Your task to perform on an android device: add a label to a message in the gmail app Image 0: 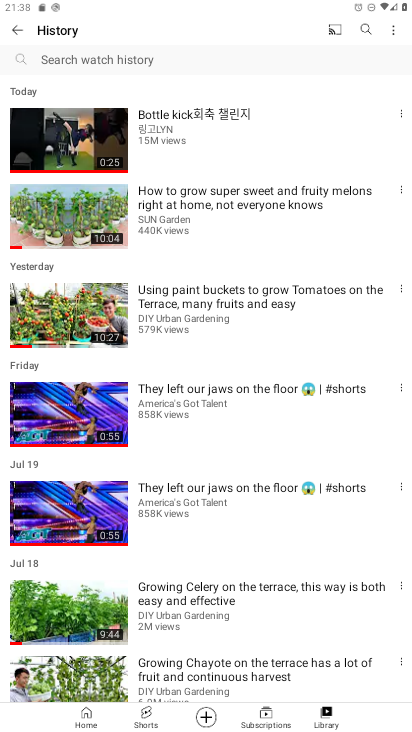
Step 0: press home button
Your task to perform on an android device: add a label to a message in the gmail app Image 1: 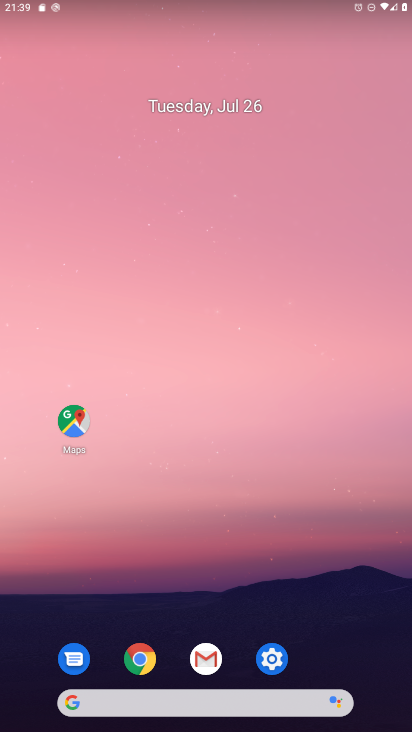
Step 1: click (215, 647)
Your task to perform on an android device: add a label to a message in the gmail app Image 2: 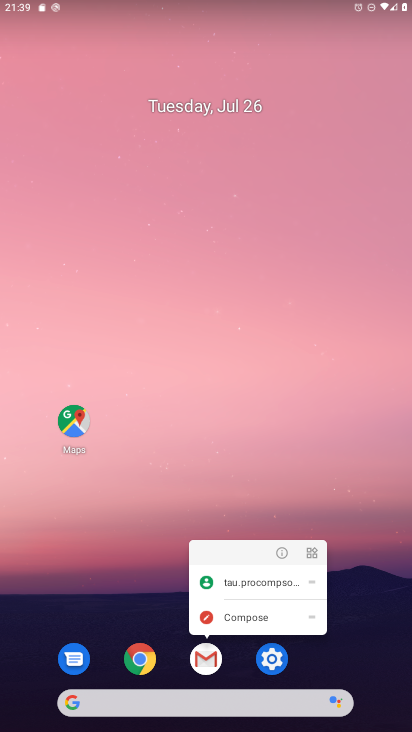
Step 2: click (199, 652)
Your task to perform on an android device: add a label to a message in the gmail app Image 3: 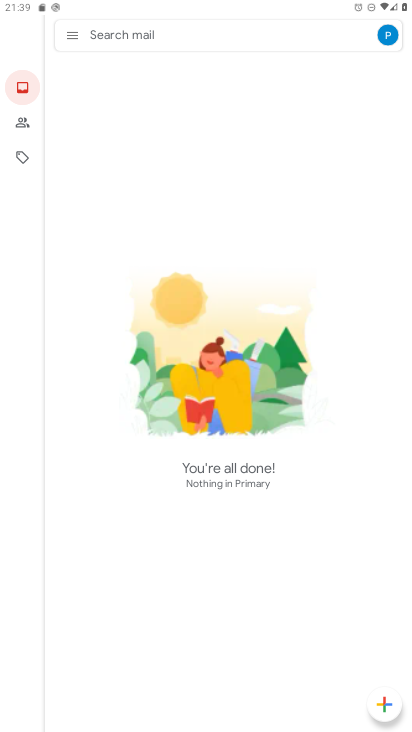
Step 3: click (73, 30)
Your task to perform on an android device: add a label to a message in the gmail app Image 4: 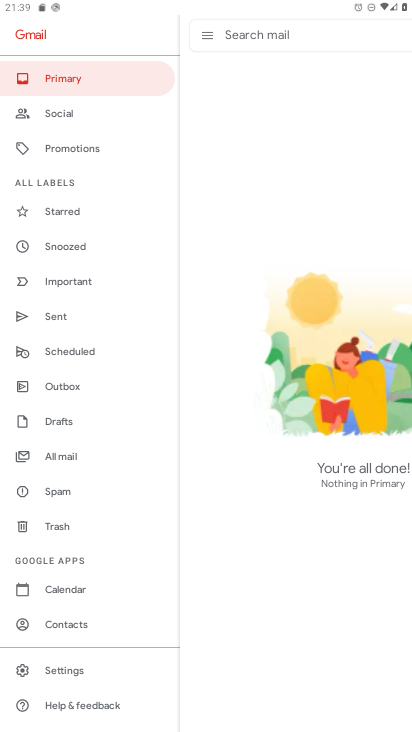
Step 4: click (66, 673)
Your task to perform on an android device: add a label to a message in the gmail app Image 5: 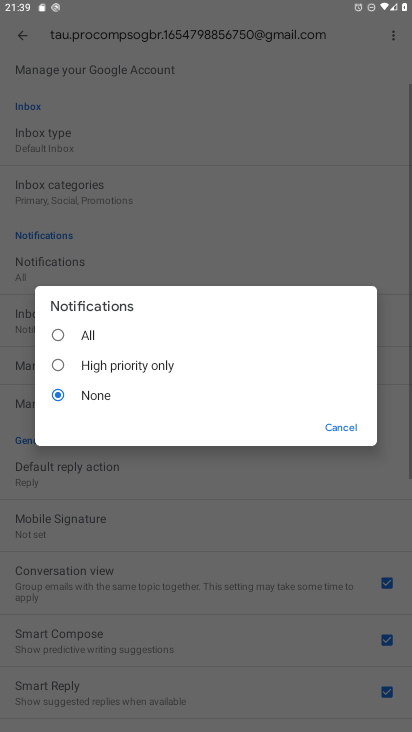
Step 5: click (140, 516)
Your task to perform on an android device: add a label to a message in the gmail app Image 6: 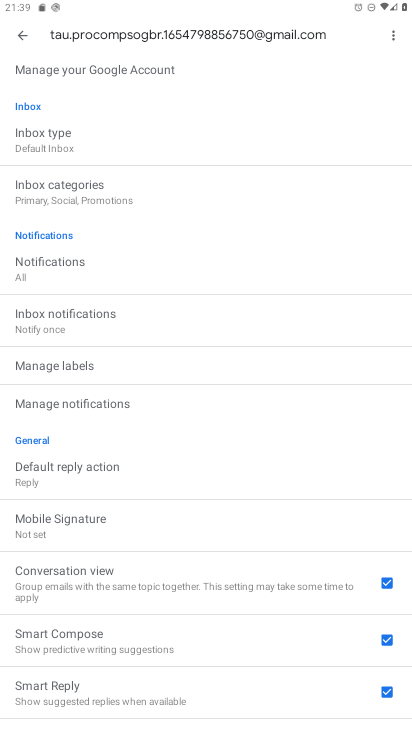
Step 6: click (84, 369)
Your task to perform on an android device: add a label to a message in the gmail app Image 7: 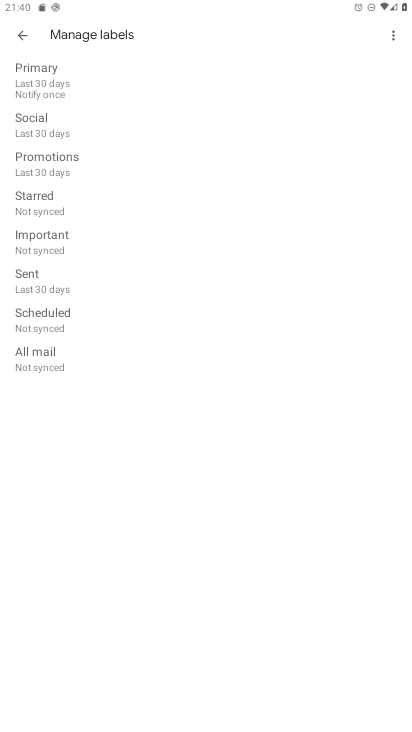
Step 7: click (42, 90)
Your task to perform on an android device: add a label to a message in the gmail app Image 8: 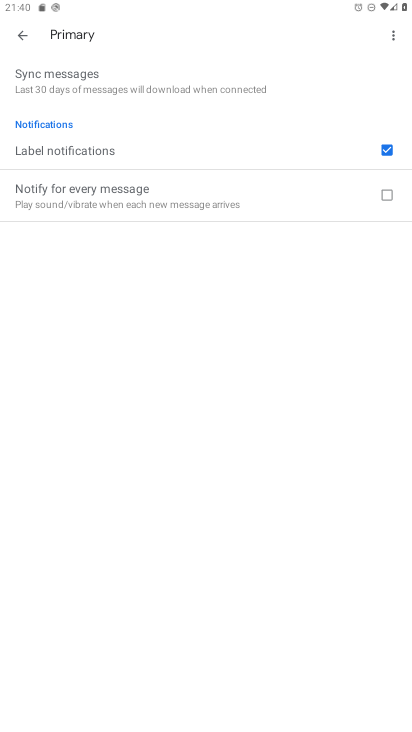
Step 8: task complete